Your task to perform on an android device: Go to location settings Image 0: 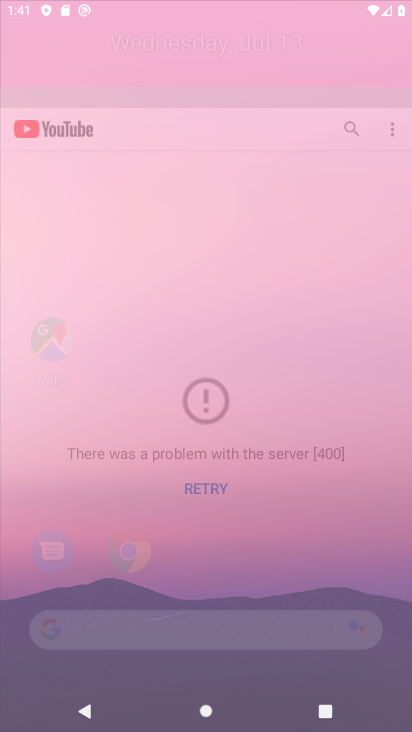
Step 0: click (124, 593)
Your task to perform on an android device: Go to location settings Image 1: 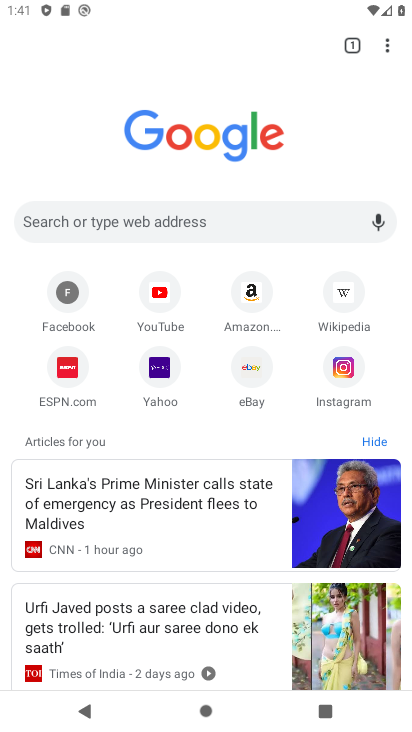
Step 1: press home button
Your task to perform on an android device: Go to location settings Image 2: 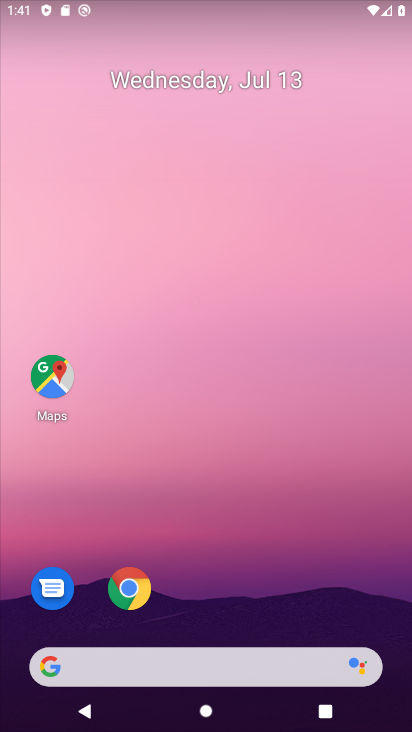
Step 2: drag from (225, 638) to (202, 135)
Your task to perform on an android device: Go to location settings Image 3: 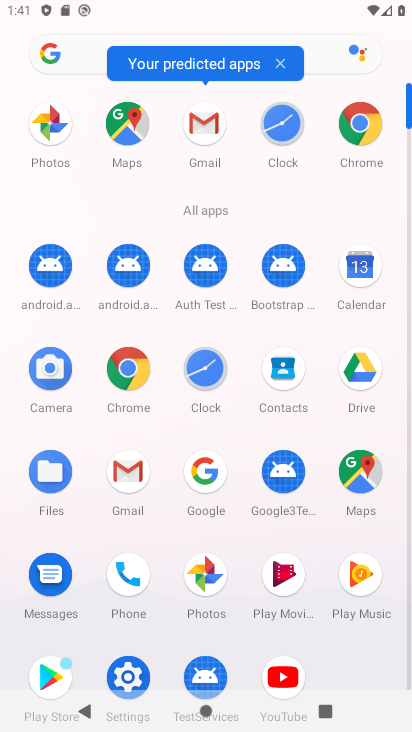
Step 3: click (139, 659)
Your task to perform on an android device: Go to location settings Image 4: 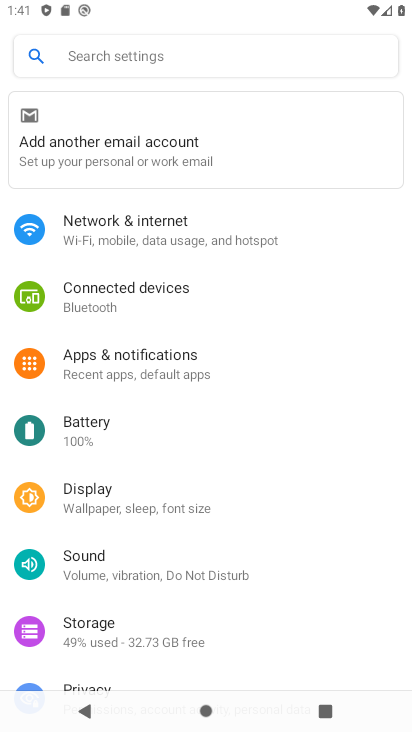
Step 4: drag from (200, 572) to (170, 211)
Your task to perform on an android device: Go to location settings Image 5: 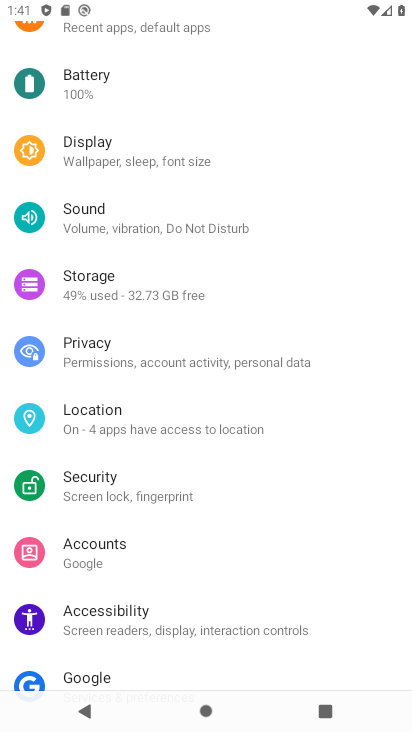
Step 5: click (101, 410)
Your task to perform on an android device: Go to location settings Image 6: 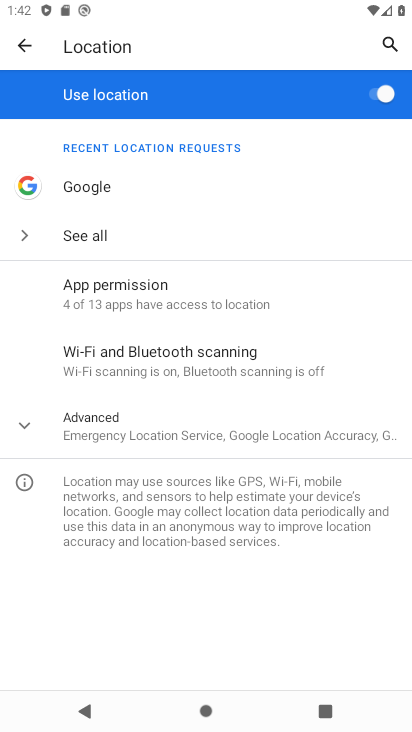
Step 6: click (122, 414)
Your task to perform on an android device: Go to location settings Image 7: 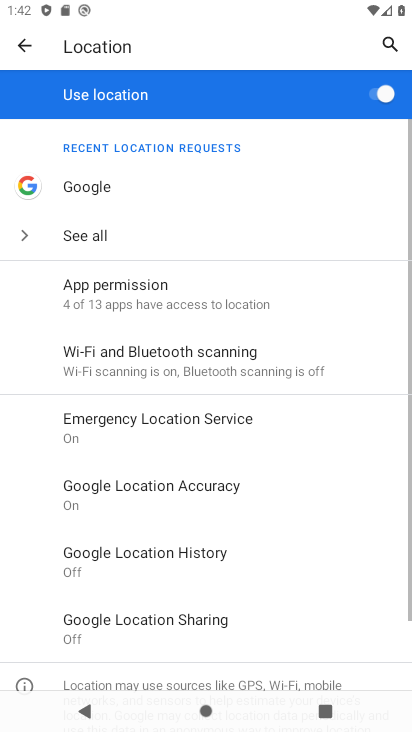
Step 7: task complete